Your task to perform on an android device: Open settings on Google Maps Image 0: 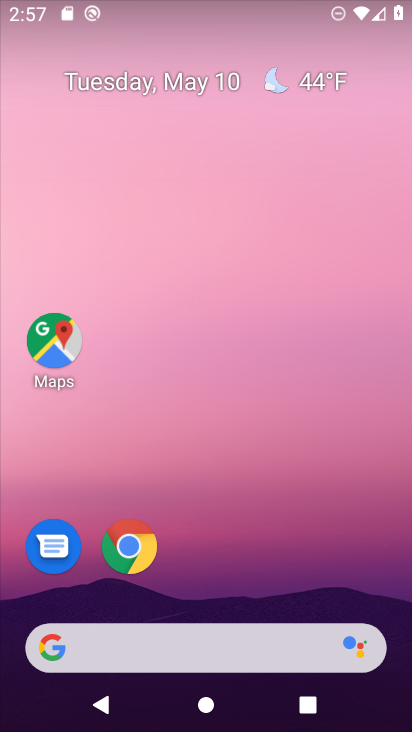
Step 0: drag from (215, 630) to (96, 10)
Your task to perform on an android device: Open settings on Google Maps Image 1: 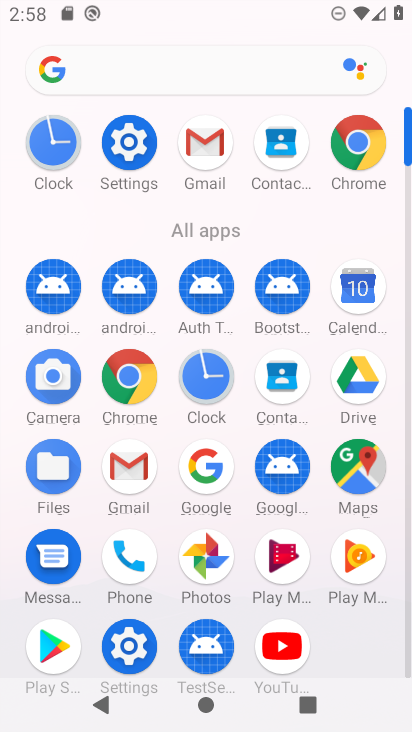
Step 1: click (362, 485)
Your task to perform on an android device: Open settings on Google Maps Image 2: 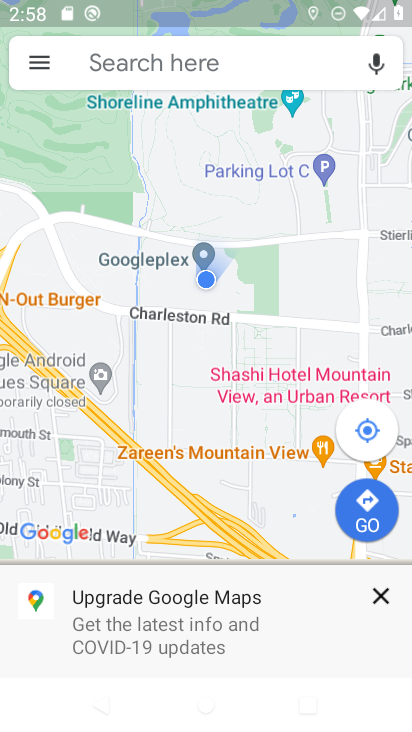
Step 2: click (40, 50)
Your task to perform on an android device: Open settings on Google Maps Image 3: 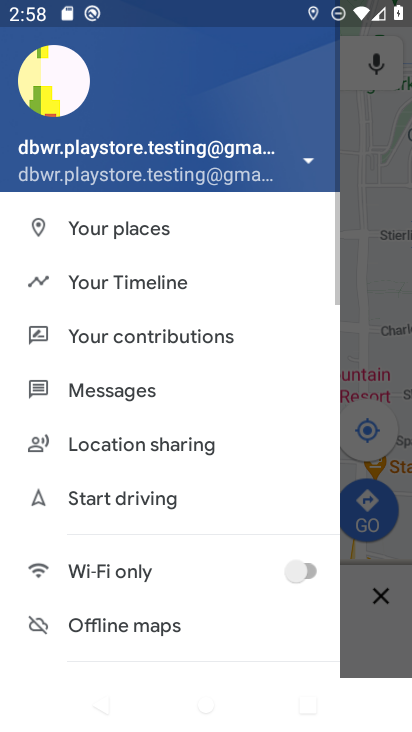
Step 3: click (139, 290)
Your task to perform on an android device: Open settings on Google Maps Image 4: 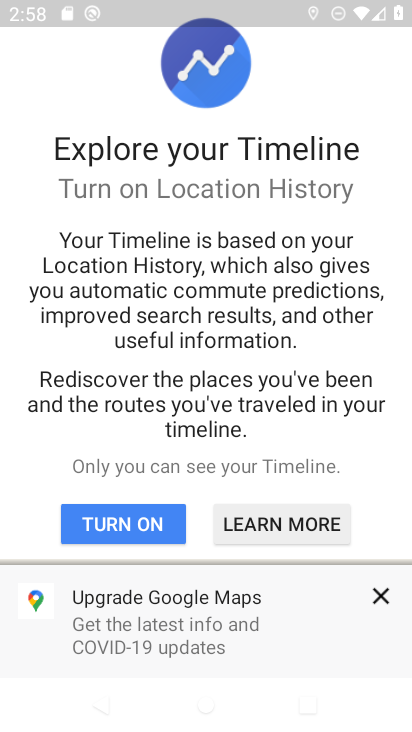
Step 4: click (376, 593)
Your task to perform on an android device: Open settings on Google Maps Image 5: 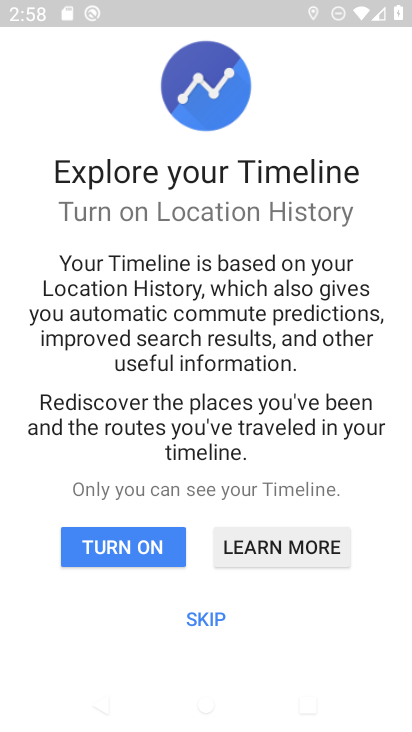
Step 5: click (205, 611)
Your task to perform on an android device: Open settings on Google Maps Image 6: 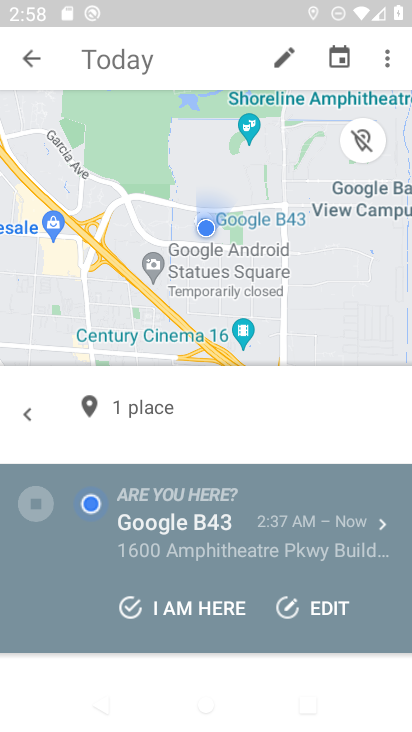
Step 6: click (390, 60)
Your task to perform on an android device: Open settings on Google Maps Image 7: 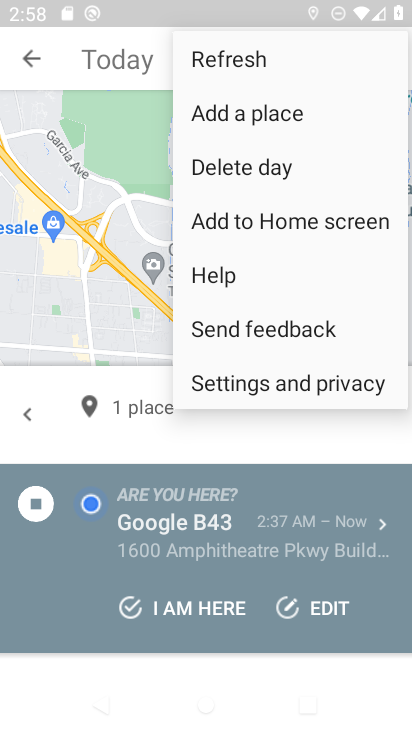
Step 7: click (292, 381)
Your task to perform on an android device: Open settings on Google Maps Image 8: 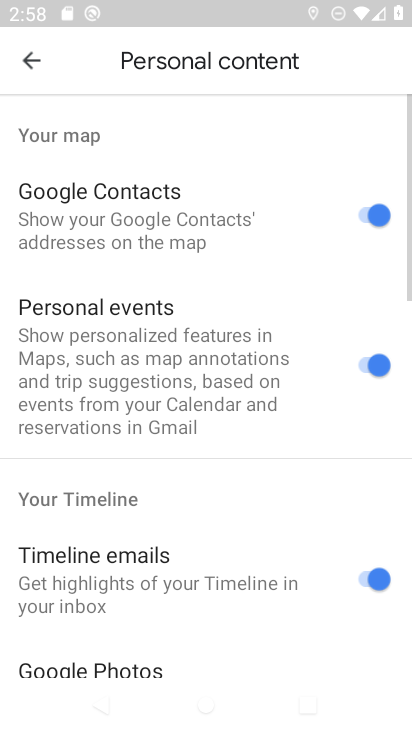
Step 8: task complete